Your task to perform on an android device: Open Yahoo.com Image 0: 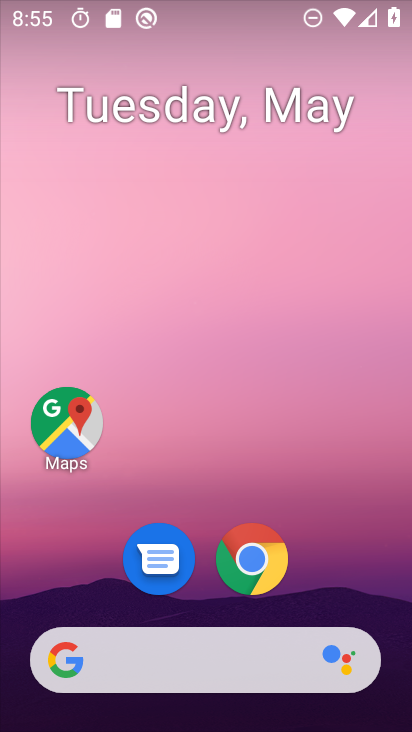
Step 0: drag from (398, 638) to (283, 52)
Your task to perform on an android device: Open Yahoo.com Image 1: 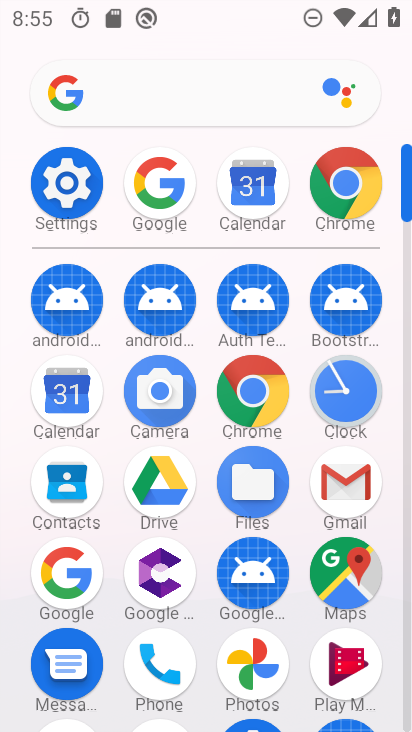
Step 1: click (74, 563)
Your task to perform on an android device: Open Yahoo.com Image 2: 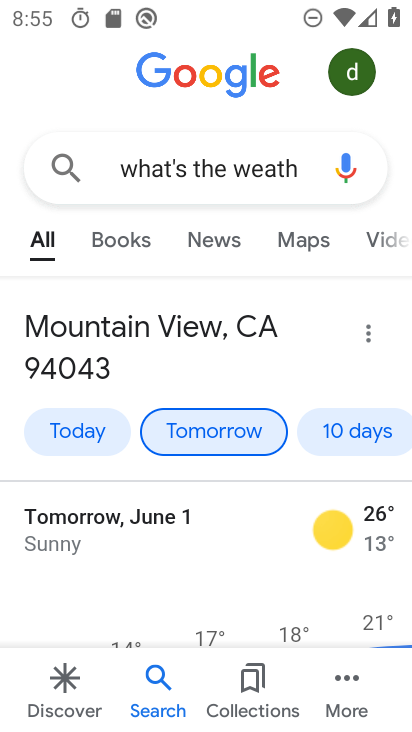
Step 2: press back button
Your task to perform on an android device: Open Yahoo.com Image 3: 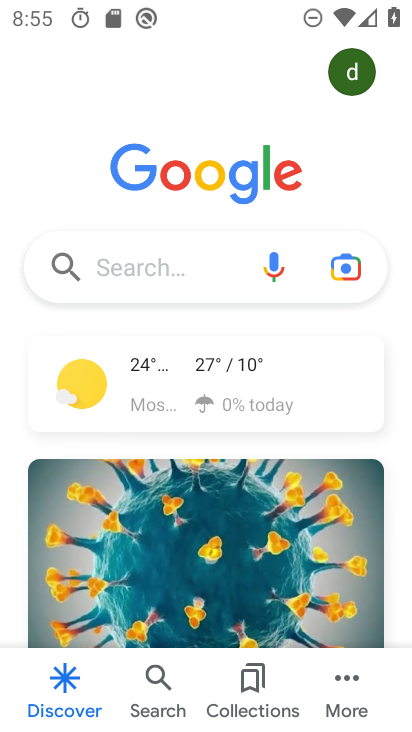
Step 3: click (147, 261)
Your task to perform on an android device: Open Yahoo.com Image 4: 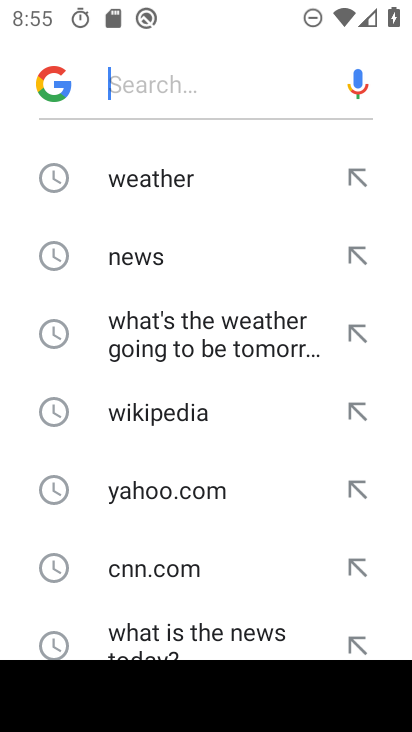
Step 4: click (139, 510)
Your task to perform on an android device: Open Yahoo.com Image 5: 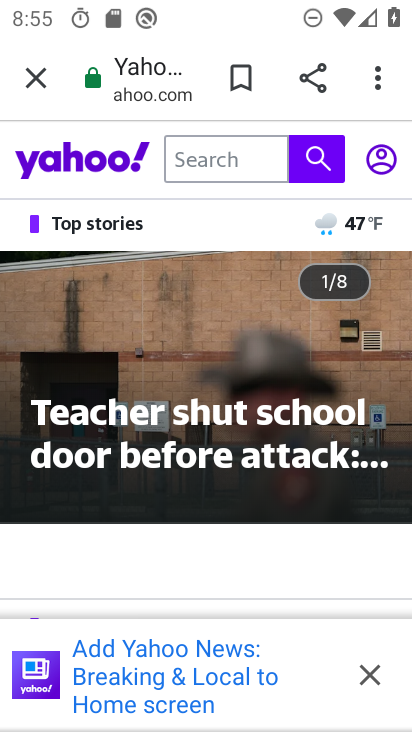
Step 5: task complete